Your task to perform on an android device: toggle wifi Image 0: 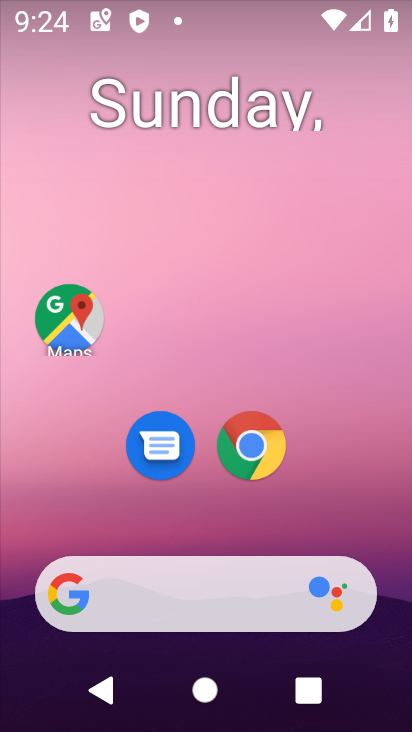
Step 0: drag from (395, 578) to (327, 168)
Your task to perform on an android device: toggle wifi Image 1: 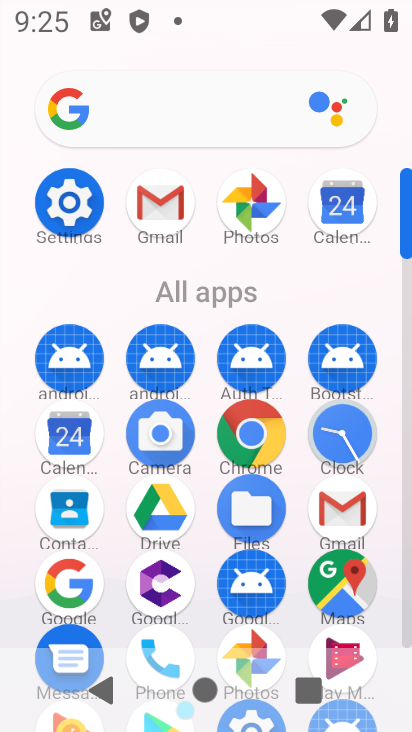
Step 1: click (407, 637)
Your task to perform on an android device: toggle wifi Image 2: 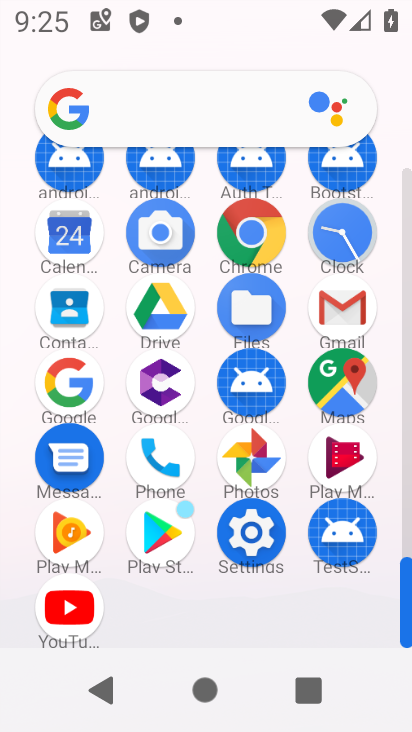
Step 2: click (251, 520)
Your task to perform on an android device: toggle wifi Image 3: 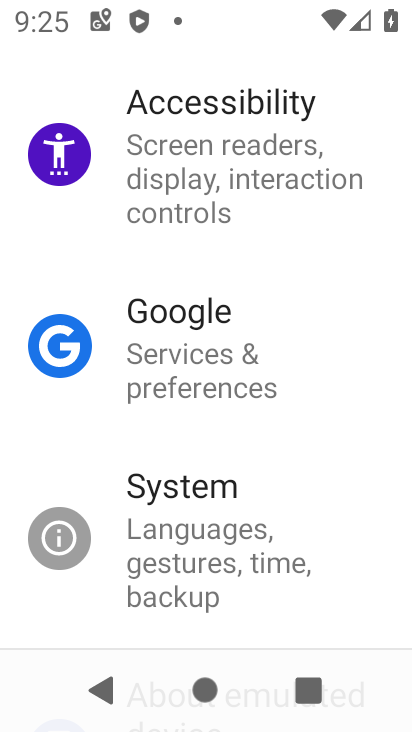
Step 3: drag from (342, 150) to (327, 402)
Your task to perform on an android device: toggle wifi Image 4: 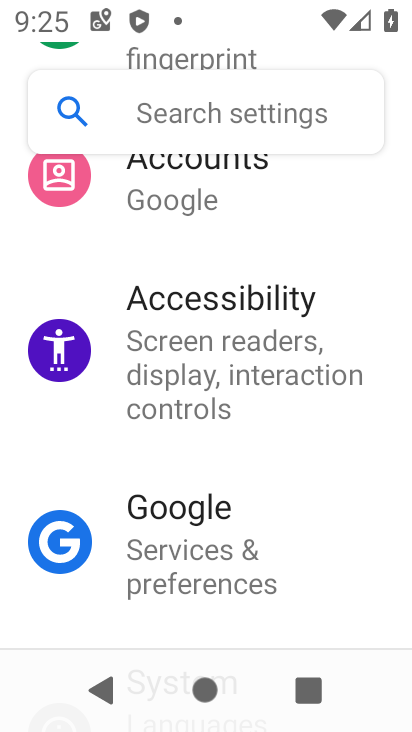
Step 4: drag from (338, 186) to (335, 537)
Your task to perform on an android device: toggle wifi Image 5: 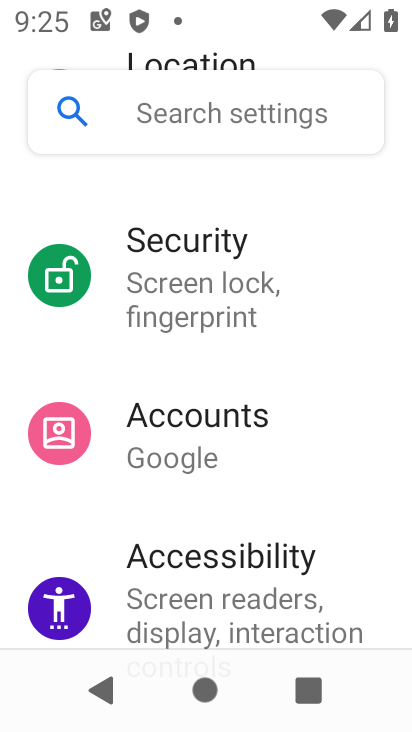
Step 5: drag from (314, 207) to (326, 527)
Your task to perform on an android device: toggle wifi Image 6: 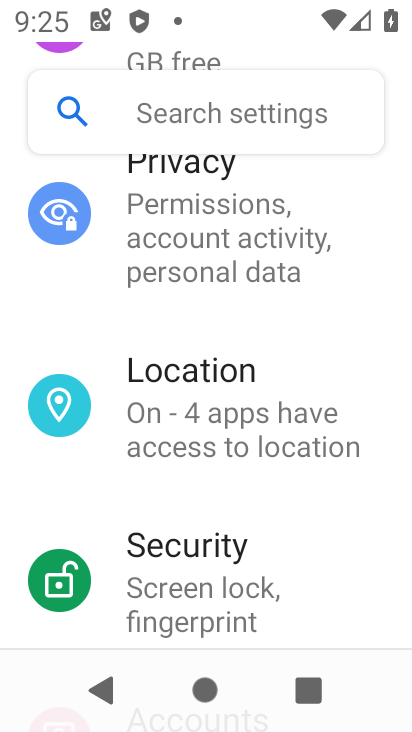
Step 6: drag from (306, 207) to (310, 417)
Your task to perform on an android device: toggle wifi Image 7: 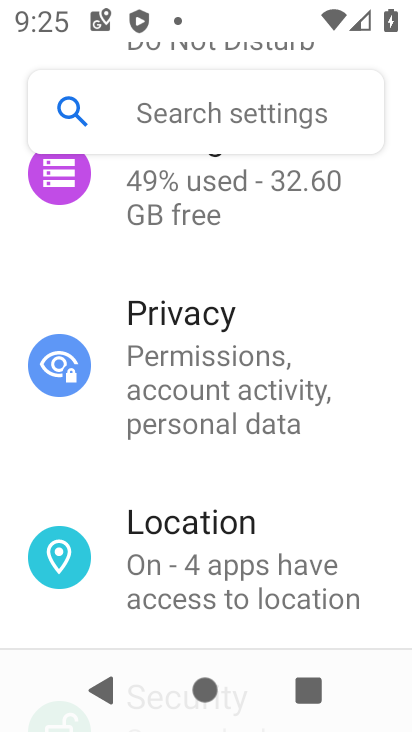
Step 7: drag from (324, 201) to (338, 423)
Your task to perform on an android device: toggle wifi Image 8: 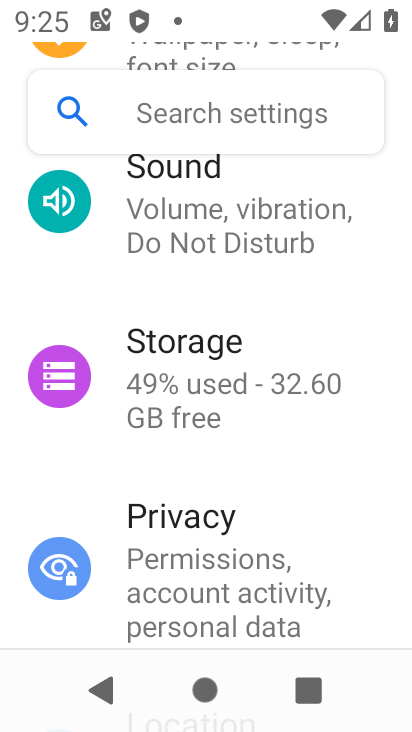
Step 8: drag from (304, 242) to (323, 548)
Your task to perform on an android device: toggle wifi Image 9: 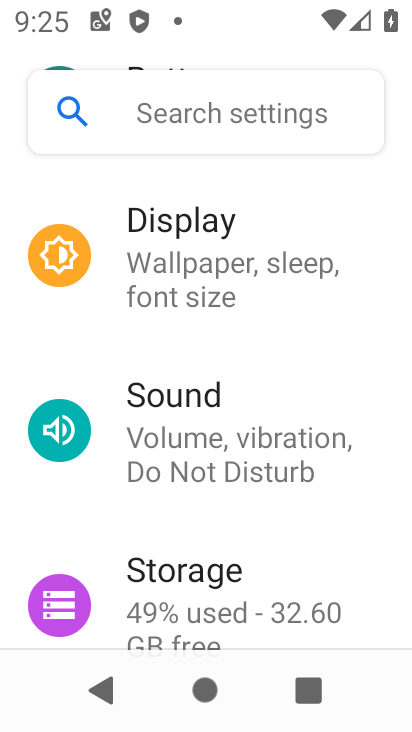
Step 9: drag from (320, 275) to (310, 551)
Your task to perform on an android device: toggle wifi Image 10: 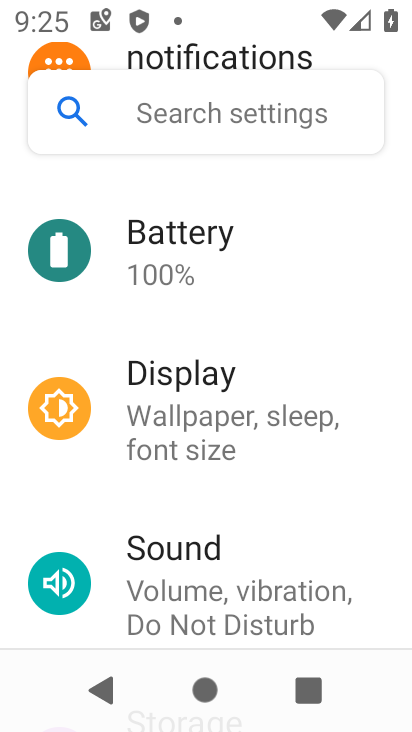
Step 10: drag from (310, 306) to (319, 492)
Your task to perform on an android device: toggle wifi Image 11: 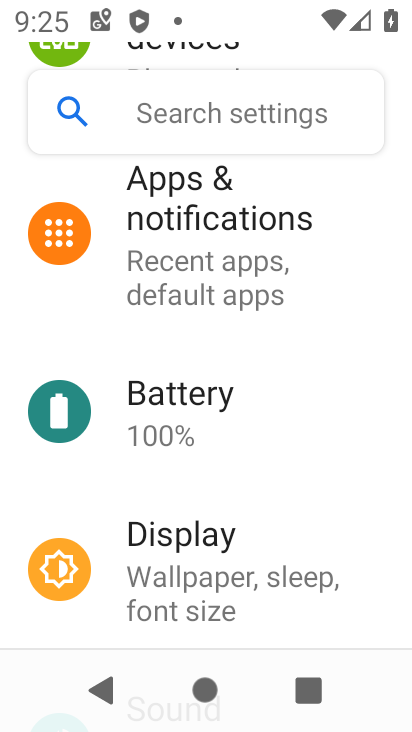
Step 11: drag from (308, 212) to (318, 498)
Your task to perform on an android device: toggle wifi Image 12: 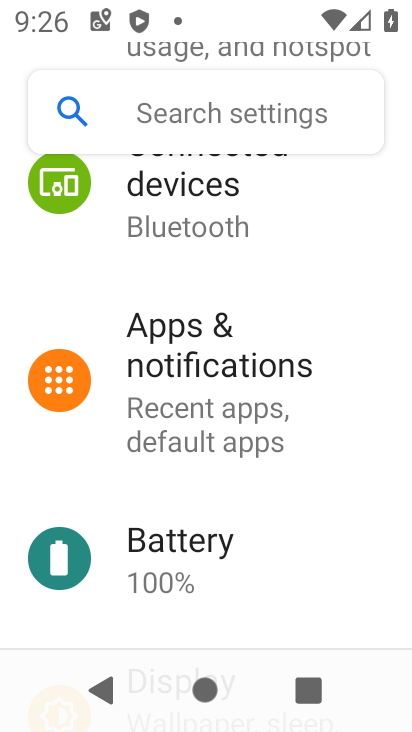
Step 12: drag from (308, 248) to (334, 530)
Your task to perform on an android device: toggle wifi Image 13: 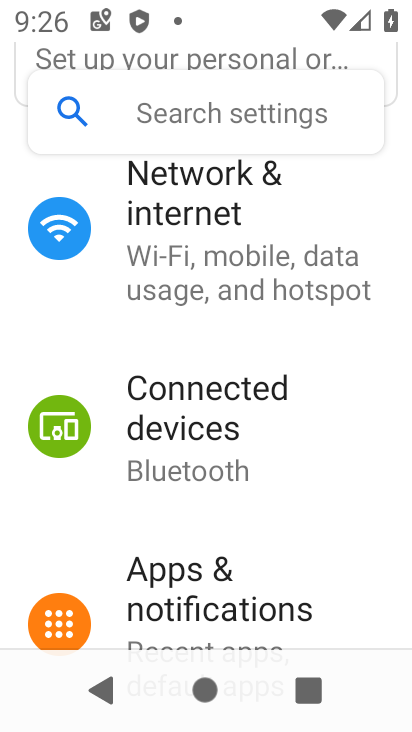
Step 13: click (192, 216)
Your task to perform on an android device: toggle wifi Image 14: 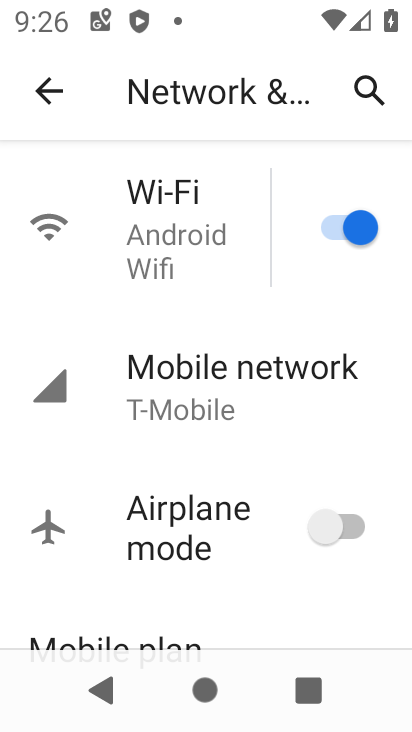
Step 14: click (333, 219)
Your task to perform on an android device: toggle wifi Image 15: 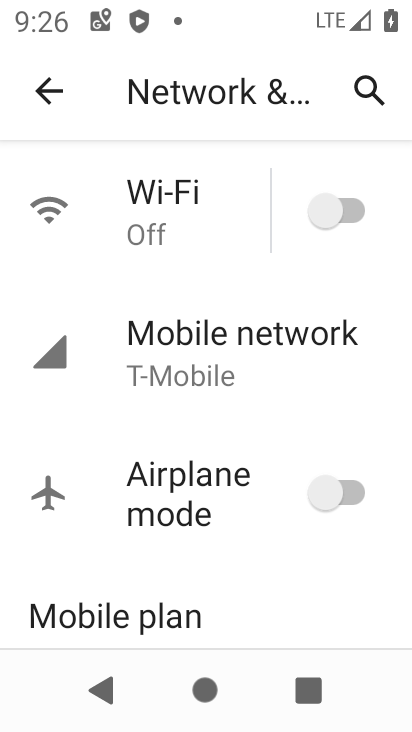
Step 15: task complete